Your task to perform on an android device: change notifications settings Image 0: 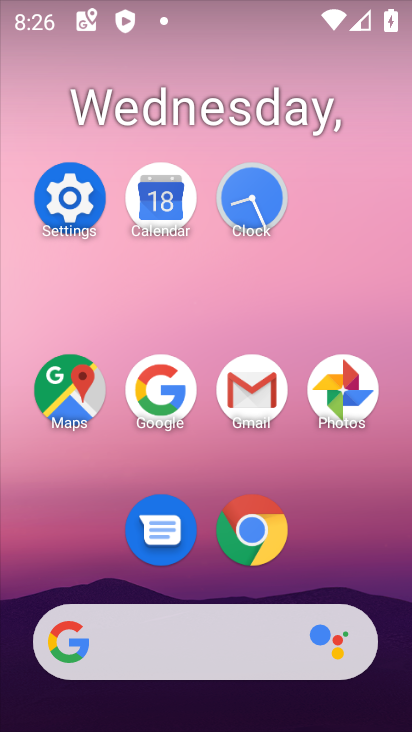
Step 0: click (86, 212)
Your task to perform on an android device: change notifications settings Image 1: 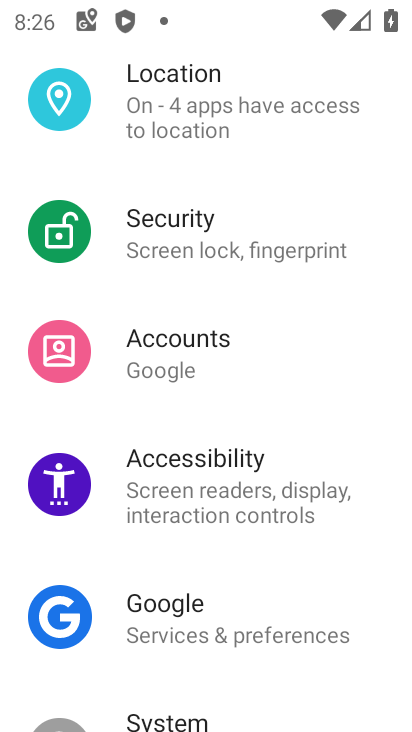
Step 1: drag from (323, 170) to (289, 536)
Your task to perform on an android device: change notifications settings Image 2: 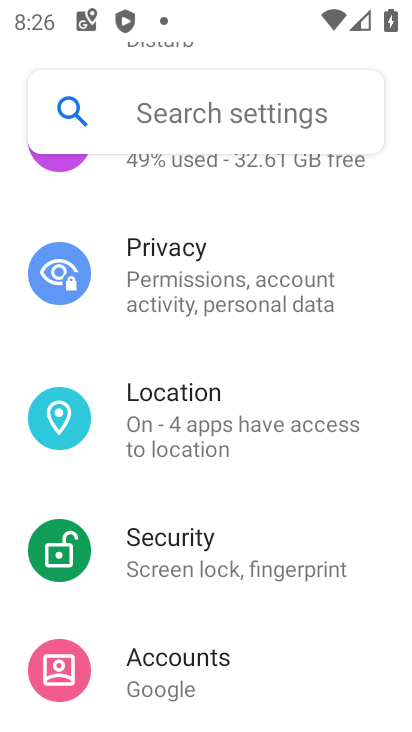
Step 2: drag from (308, 226) to (277, 566)
Your task to perform on an android device: change notifications settings Image 3: 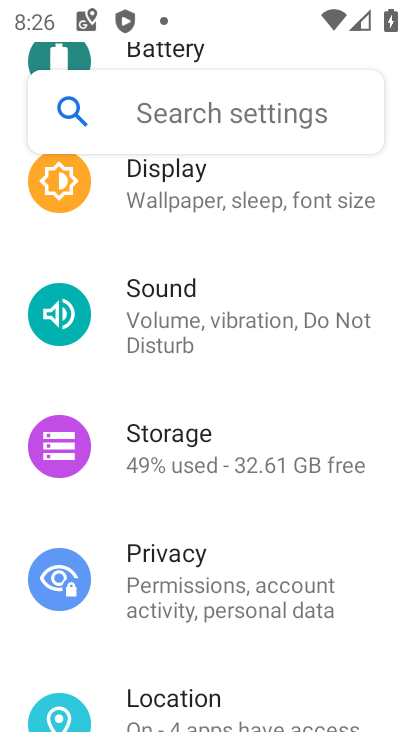
Step 3: drag from (272, 267) to (241, 589)
Your task to perform on an android device: change notifications settings Image 4: 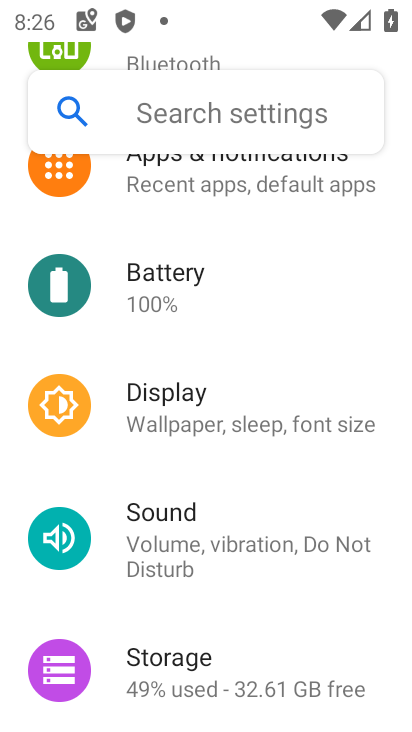
Step 4: click (273, 190)
Your task to perform on an android device: change notifications settings Image 5: 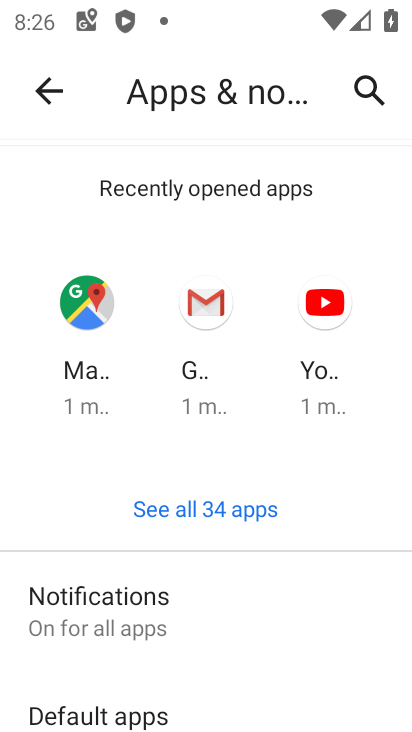
Step 5: drag from (289, 608) to (324, 207)
Your task to perform on an android device: change notifications settings Image 6: 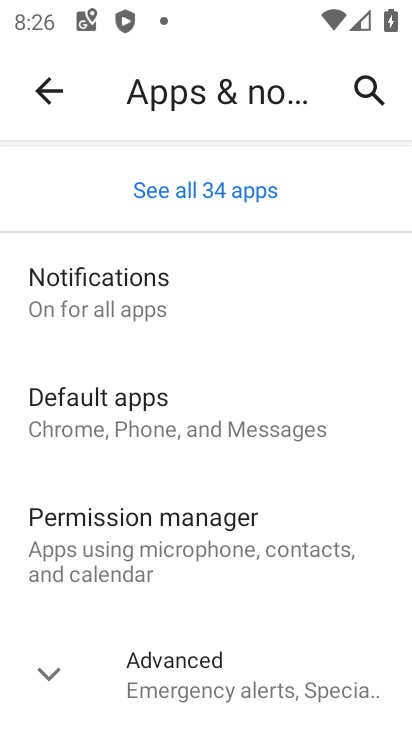
Step 6: click (210, 264)
Your task to perform on an android device: change notifications settings Image 7: 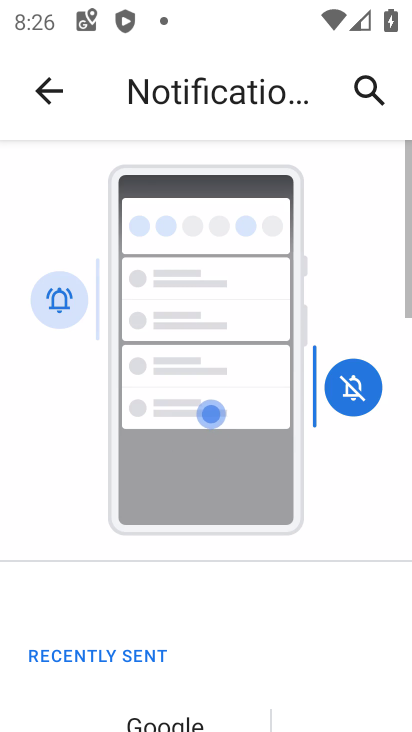
Step 7: drag from (261, 579) to (317, 198)
Your task to perform on an android device: change notifications settings Image 8: 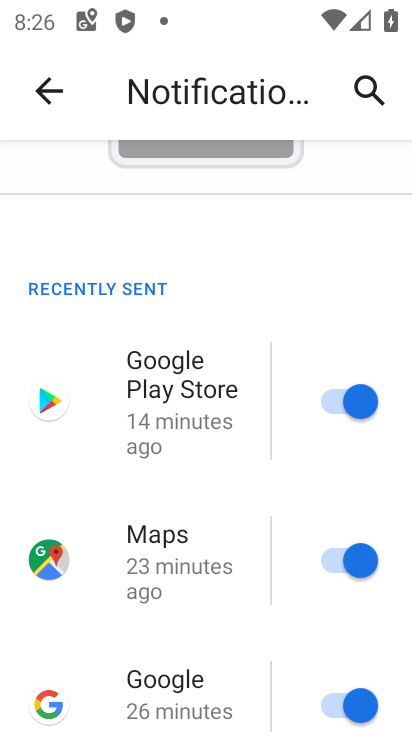
Step 8: drag from (174, 569) to (212, 76)
Your task to perform on an android device: change notifications settings Image 9: 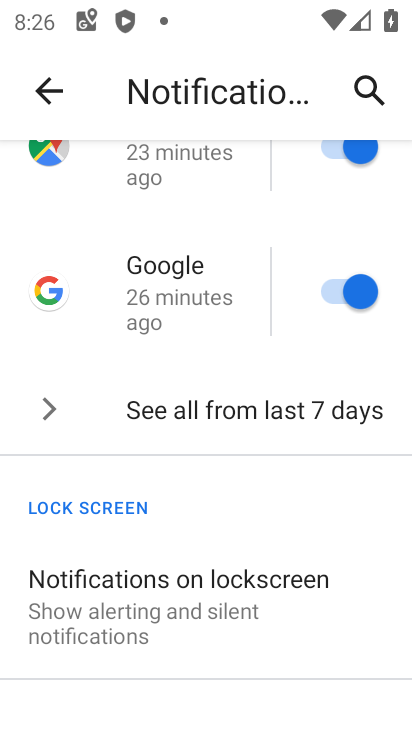
Step 9: drag from (231, 609) to (262, 241)
Your task to perform on an android device: change notifications settings Image 10: 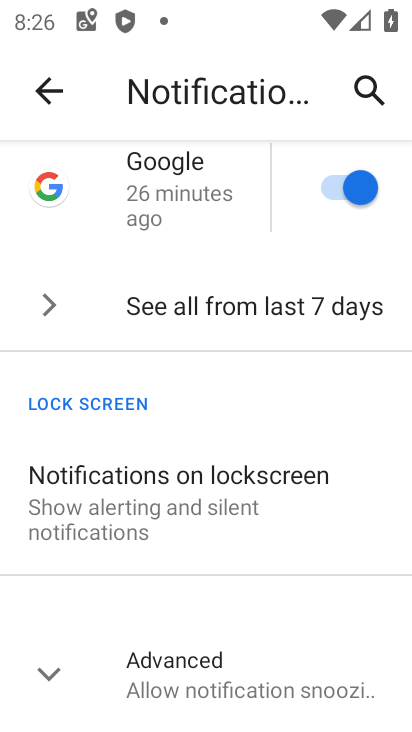
Step 10: click (196, 666)
Your task to perform on an android device: change notifications settings Image 11: 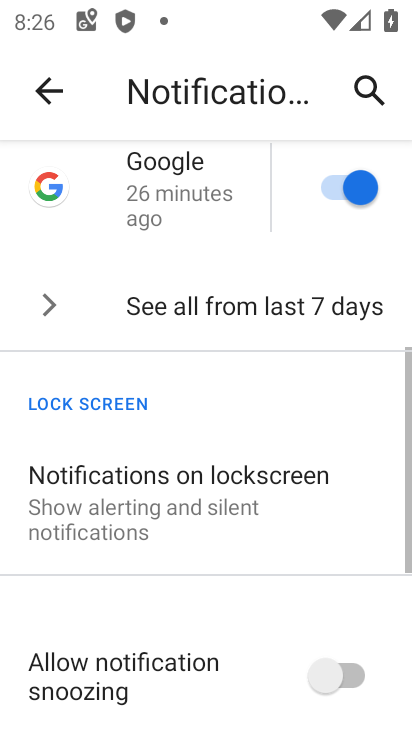
Step 11: drag from (193, 642) to (219, 166)
Your task to perform on an android device: change notifications settings Image 12: 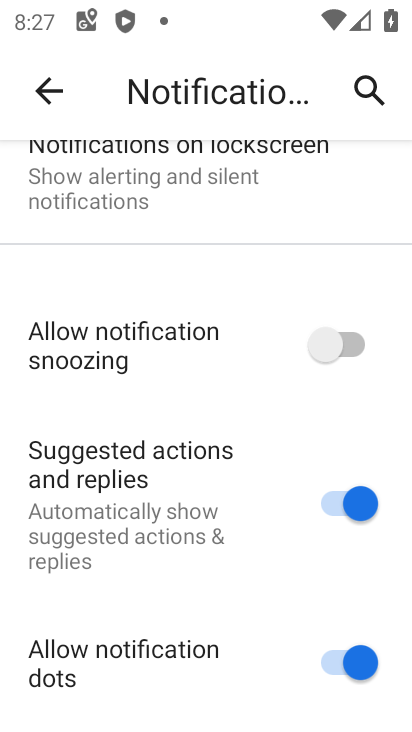
Step 12: click (347, 345)
Your task to perform on an android device: change notifications settings Image 13: 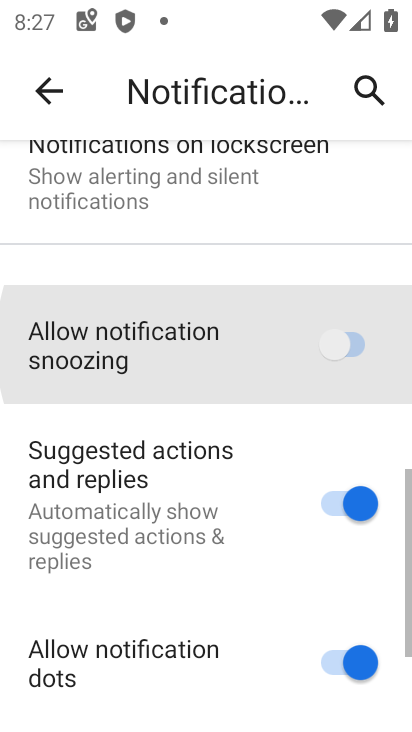
Step 13: click (351, 493)
Your task to perform on an android device: change notifications settings Image 14: 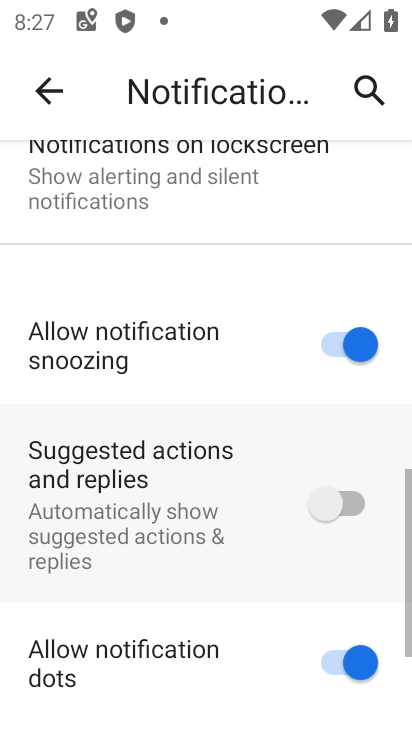
Step 14: click (337, 658)
Your task to perform on an android device: change notifications settings Image 15: 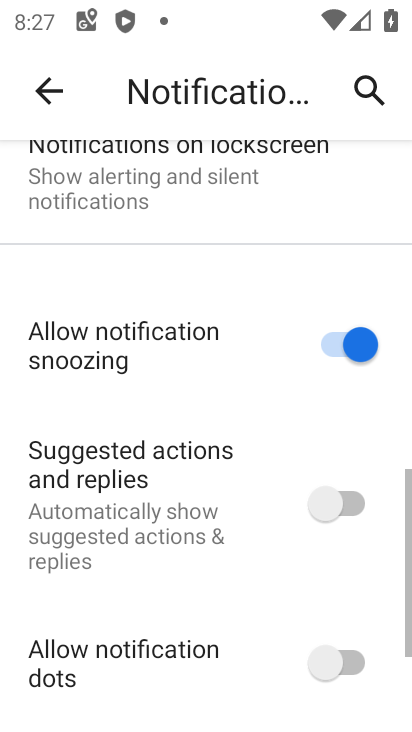
Step 15: task complete